Your task to perform on an android device: Clear the shopping cart on bestbuy.com. Search for logitech g pro on bestbuy.com, select the first entry, and add it to the cart. Image 0: 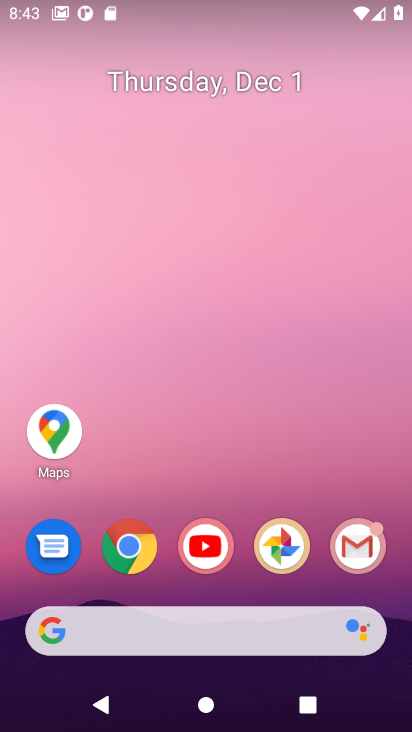
Step 0: click (133, 545)
Your task to perform on an android device: Clear the shopping cart on bestbuy.com. Search for logitech g pro on bestbuy.com, select the first entry, and add it to the cart. Image 1: 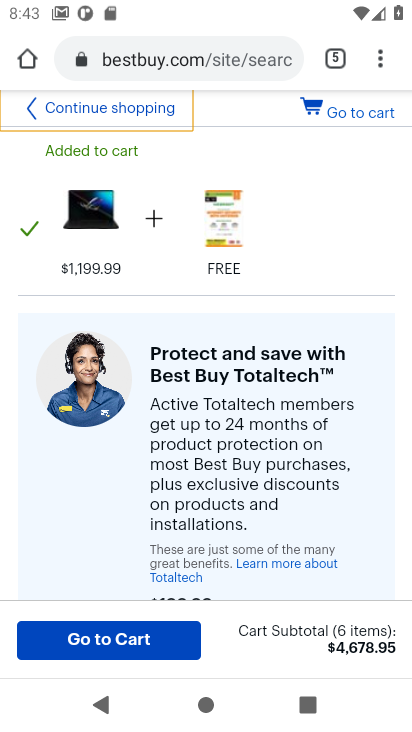
Step 1: click (346, 117)
Your task to perform on an android device: Clear the shopping cart on bestbuy.com. Search for logitech g pro on bestbuy.com, select the first entry, and add it to the cart. Image 2: 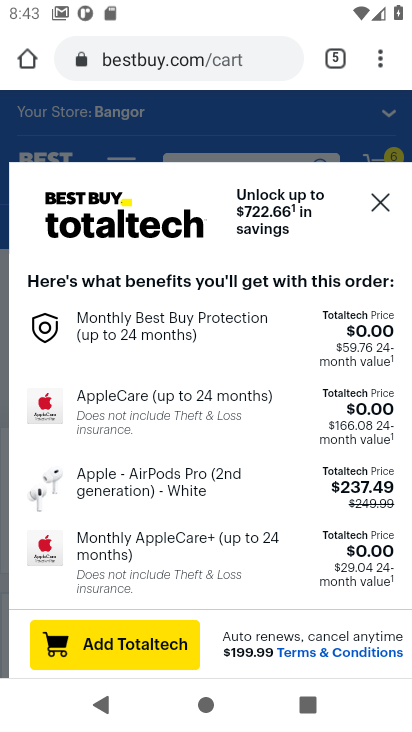
Step 2: click (376, 199)
Your task to perform on an android device: Clear the shopping cart on bestbuy.com. Search for logitech g pro on bestbuy.com, select the first entry, and add it to the cart. Image 3: 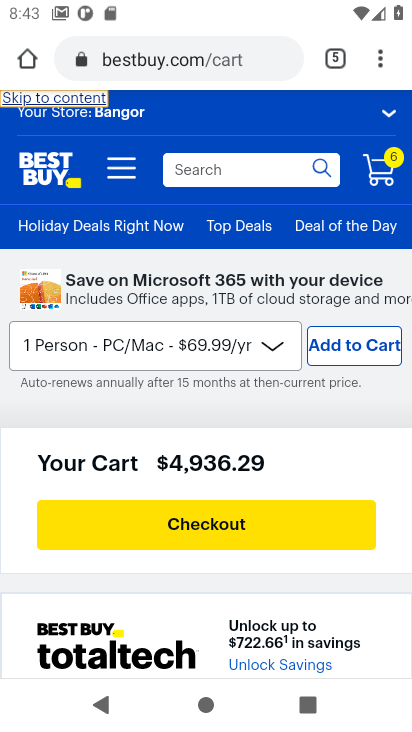
Step 3: drag from (243, 393) to (263, 149)
Your task to perform on an android device: Clear the shopping cart on bestbuy.com. Search for logitech g pro on bestbuy.com, select the first entry, and add it to the cart. Image 4: 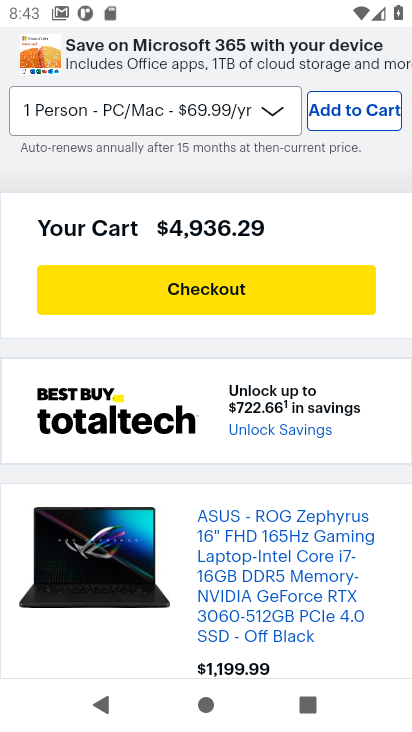
Step 4: drag from (219, 360) to (223, 124)
Your task to perform on an android device: Clear the shopping cart on bestbuy.com. Search for logitech g pro on bestbuy.com, select the first entry, and add it to the cart. Image 5: 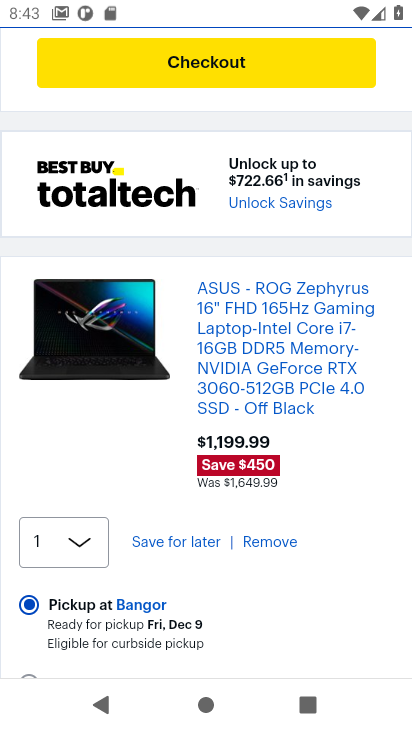
Step 5: click (266, 543)
Your task to perform on an android device: Clear the shopping cart on bestbuy.com. Search for logitech g pro on bestbuy.com, select the first entry, and add it to the cart. Image 6: 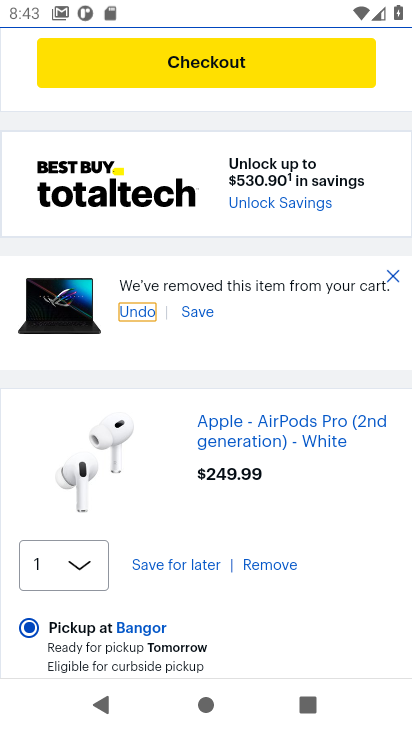
Step 6: click (267, 564)
Your task to perform on an android device: Clear the shopping cart on bestbuy.com. Search for logitech g pro on bestbuy.com, select the first entry, and add it to the cart. Image 7: 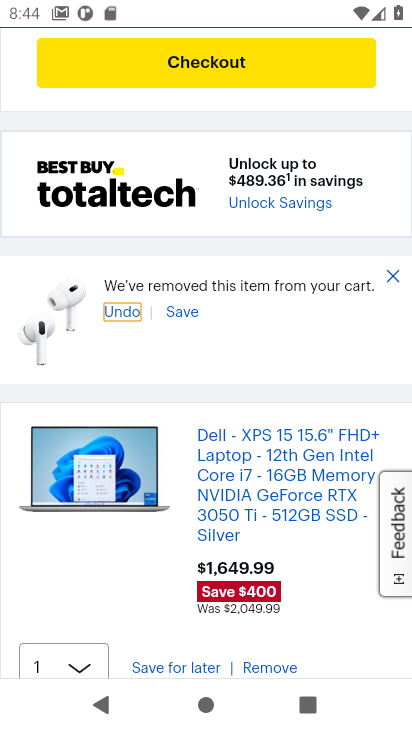
Step 7: drag from (299, 537) to (296, 417)
Your task to perform on an android device: Clear the shopping cart on bestbuy.com. Search for logitech g pro on bestbuy.com, select the first entry, and add it to the cart. Image 8: 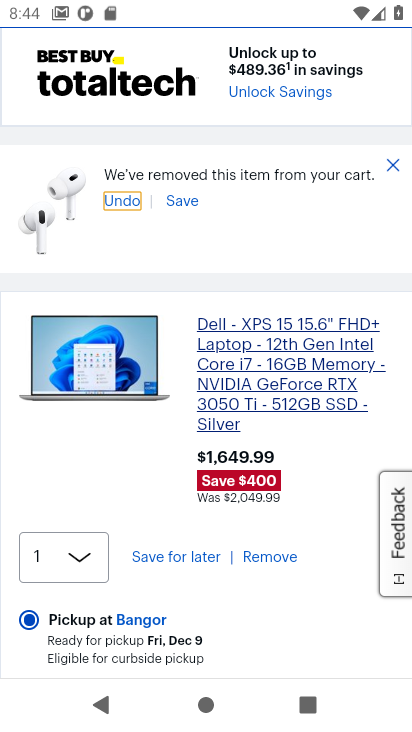
Step 8: click (273, 564)
Your task to perform on an android device: Clear the shopping cart on bestbuy.com. Search for logitech g pro on bestbuy.com, select the first entry, and add it to the cart. Image 9: 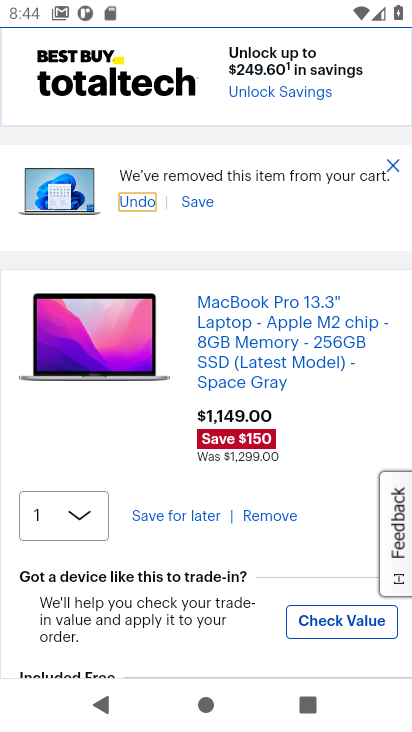
Step 9: click (263, 516)
Your task to perform on an android device: Clear the shopping cart on bestbuy.com. Search for logitech g pro on bestbuy.com, select the first entry, and add it to the cart. Image 10: 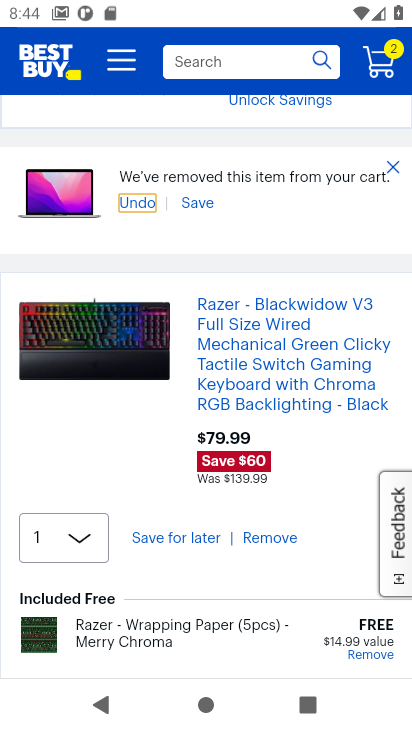
Step 10: click (259, 538)
Your task to perform on an android device: Clear the shopping cart on bestbuy.com. Search for logitech g pro on bestbuy.com, select the first entry, and add it to the cart. Image 11: 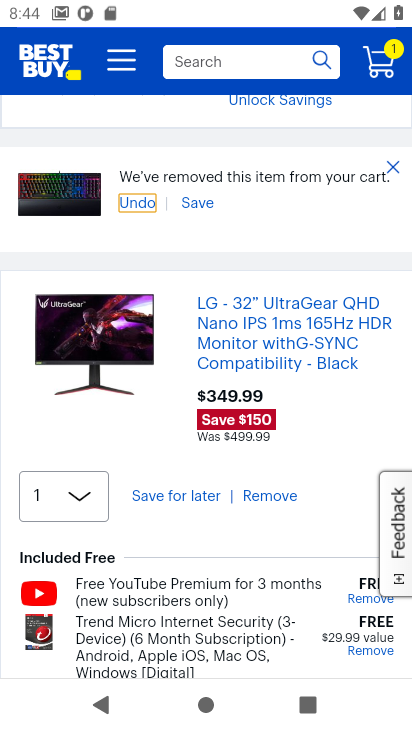
Step 11: click (273, 497)
Your task to perform on an android device: Clear the shopping cart on bestbuy.com. Search for logitech g pro on bestbuy.com, select the first entry, and add it to the cart. Image 12: 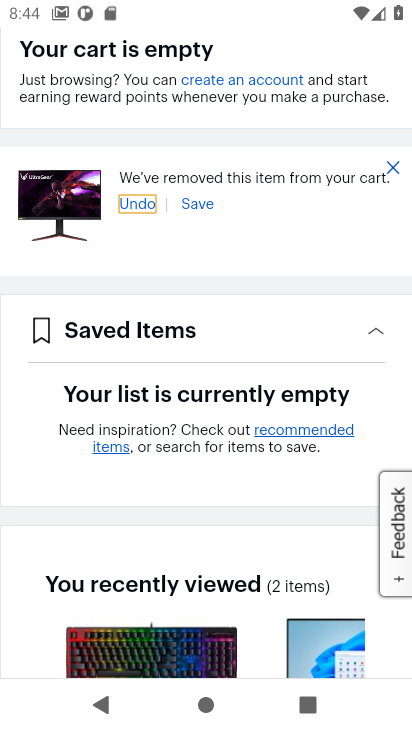
Step 12: drag from (258, 276) to (261, 486)
Your task to perform on an android device: Clear the shopping cart on bestbuy.com. Search for logitech g pro on bestbuy.com, select the first entry, and add it to the cart. Image 13: 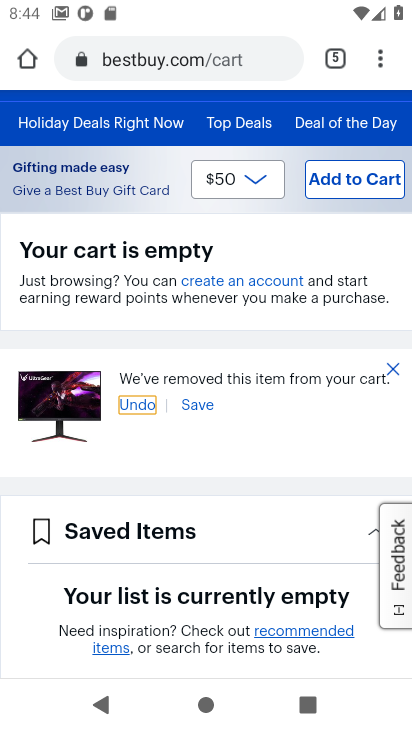
Step 13: drag from (140, 159) to (139, 398)
Your task to perform on an android device: Clear the shopping cart on bestbuy.com. Search for logitech g pro on bestbuy.com, select the first entry, and add it to the cart. Image 14: 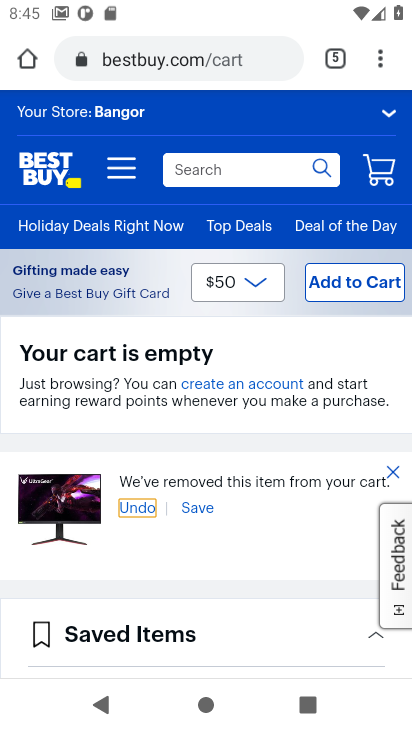
Step 14: click (204, 168)
Your task to perform on an android device: Clear the shopping cart on bestbuy.com. Search for logitech g pro on bestbuy.com, select the first entry, and add it to the cart. Image 15: 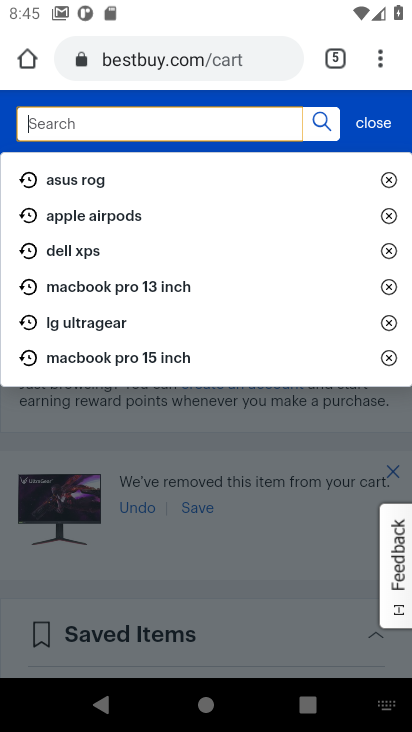
Step 15: type "logitech g pro"
Your task to perform on an android device: Clear the shopping cart on bestbuy.com. Search for logitech g pro on bestbuy.com, select the first entry, and add it to the cart. Image 16: 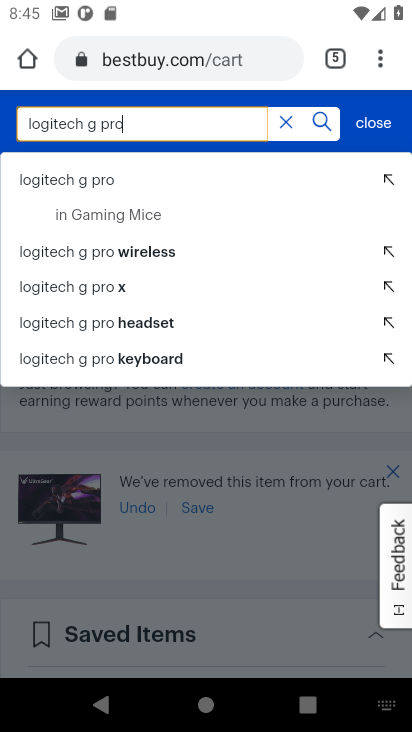
Step 16: click (39, 174)
Your task to perform on an android device: Clear the shopping cart on bestbuy.com. Search for logitech g pro on bestbuy.com, select the first entry, and add it to the cart. Image 17: 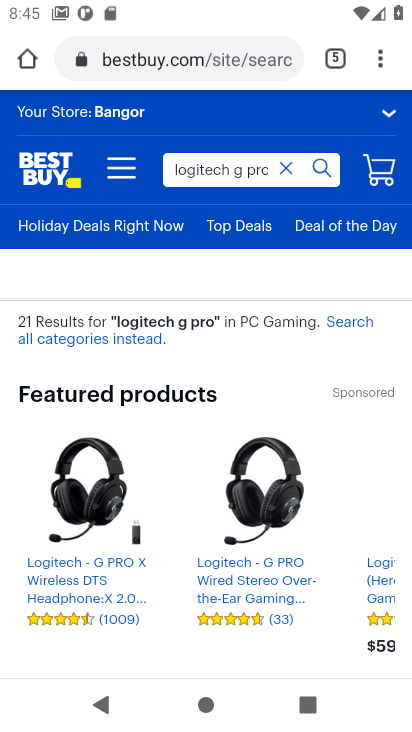
Step 17: drag from (210, 423) to (196, 146)
Your task to perform on an android device: Clear the shopping cart on bestbuy.com. Search for logitech g pro on bestbuy.com, select the first entry, and add it to the cart. Image 18: 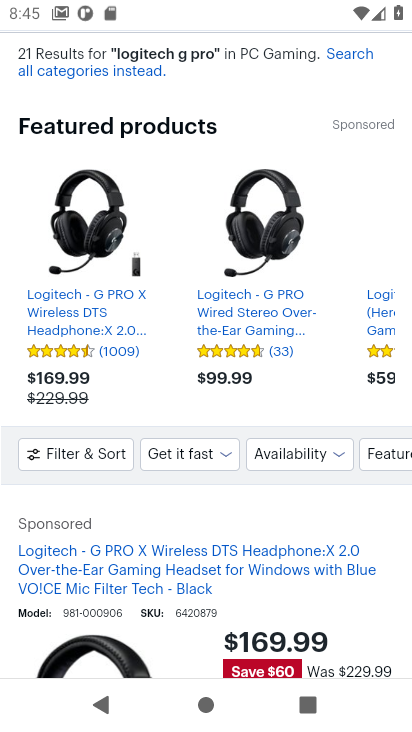
Step 18: drag from (172, 401) to (178, 193)
Your task to perform on an android device: Clear the shopping cart on bestbuy.com. Search for logitech g pro on bestbuy.com, select the first entry, and add it to the cart. Image 19: 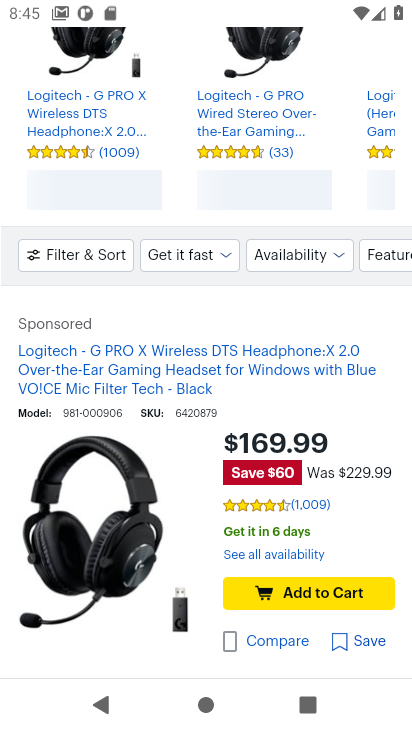
Step 19: click (278, 591)
Your task to perform on an android device: Clear the shopping cart on bestbuy.com. Search for logitech g pro on bestbuy.com, select the first entry, and add it to the cart. Image 20: 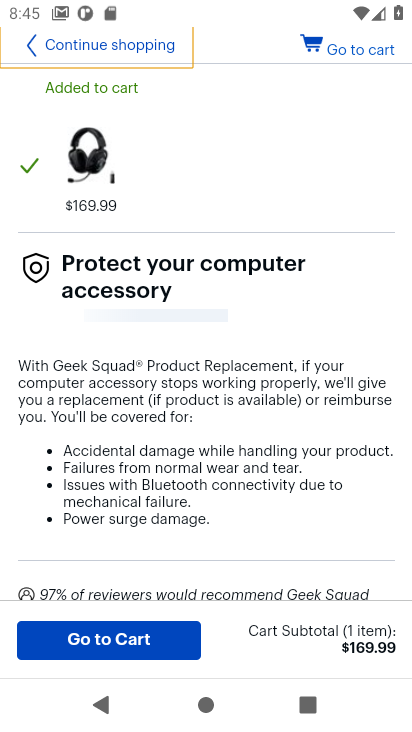
Step 20: task complete